Your task to perform on an android device: Open Amazon Image 0: 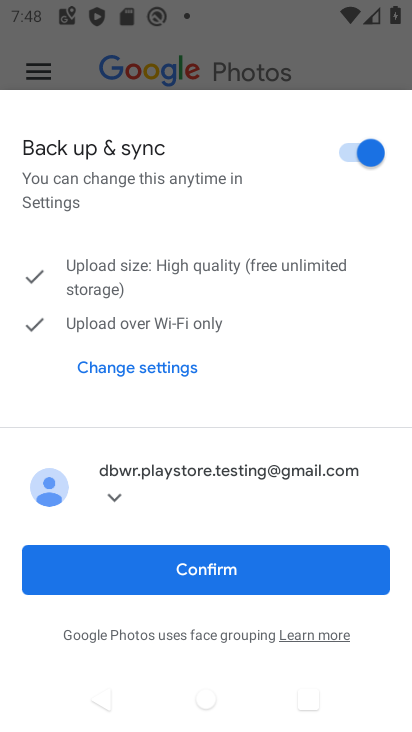
Step 0: click (249, 568)
Your task to perform on an android device: Open Amazon Image 1: 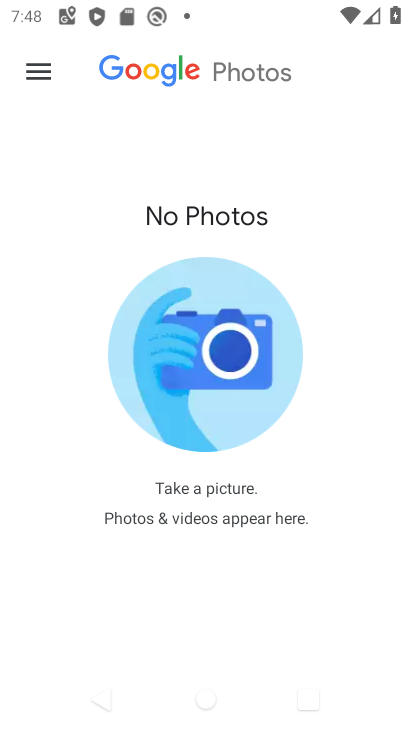
Step 1: press home button
Your task to perform on an android device: Open Amazon Image 2: 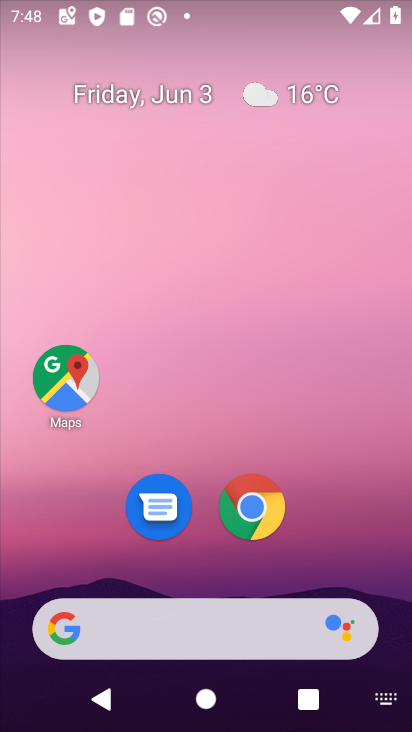
Step 2: click (252, 502)
Your task to perform on an android device: Open Amazon Image 3: 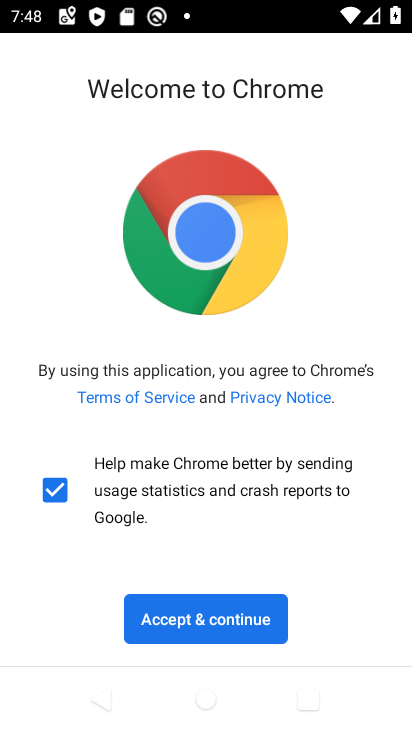
Step 3: click (250, 620)
Your task to perform on an android device: Open Amazon Image 4: 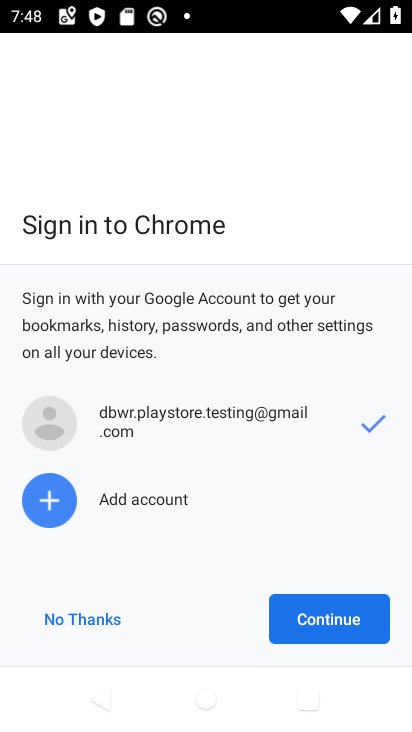
Step 4: click (369, 606)
Your task to perform on an android device: Open Amazon Image 5: 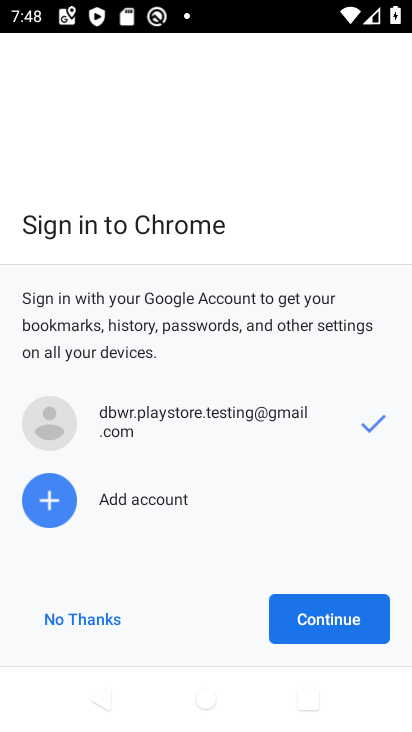
Step 5: click (369, 606)
Your task to perform on an android device: Open Amazon Image 6: 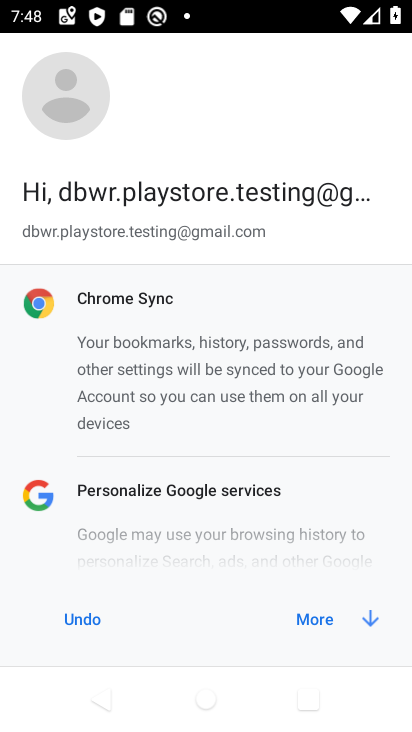
Step 6: click (369, 606)
Your task to perform on an android device: Open Amazon Image 7: 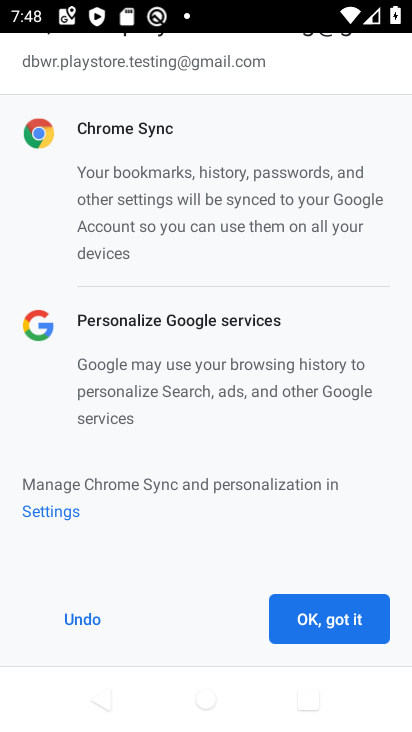
Step 7: click (335, 630)
Your task to perform on an android device: Open Amazon Image 8: 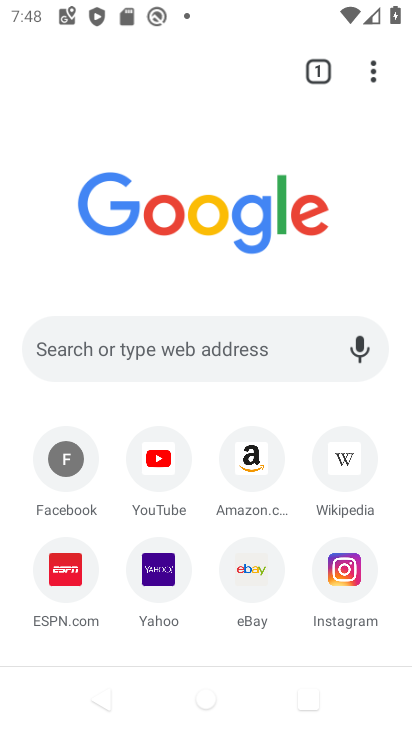
Step 8: click (258, 461)
Your task to perform on an android device: Open Amazon Image 9: 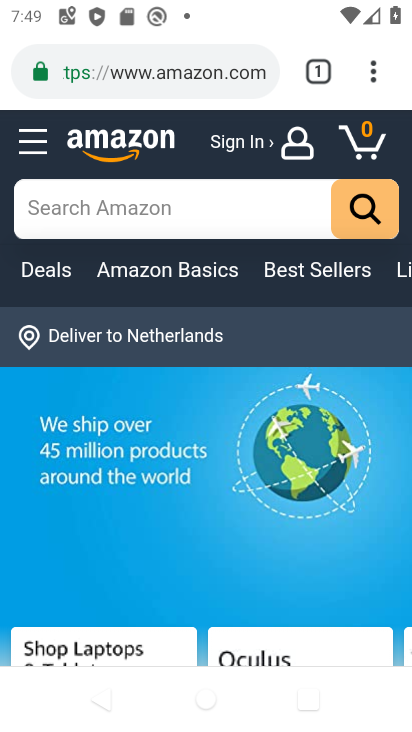
Step 9: task complete